Your task to perform on an android device: toggle sleep mode Image 0: 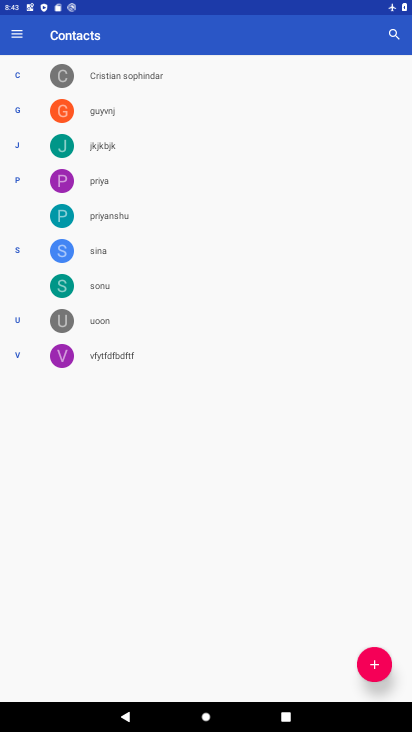
Step 0: press home button
Your task to perform on an android device: toggle sleep mode Image 1: 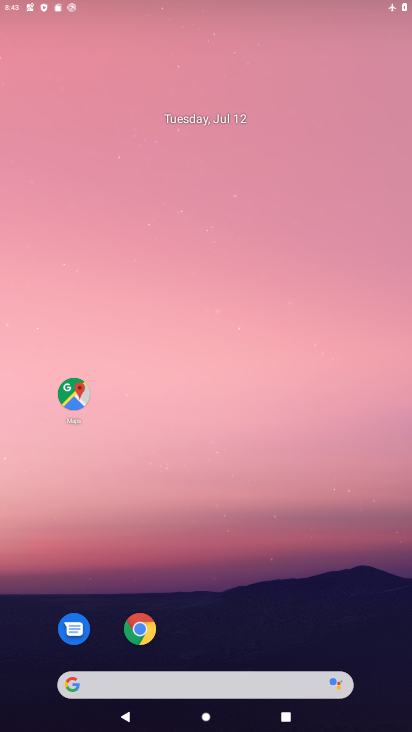
Step 1: drag from (232, 531) to (234, 148)
Your task to perform on an android device: toggle sleep mode Image 2: 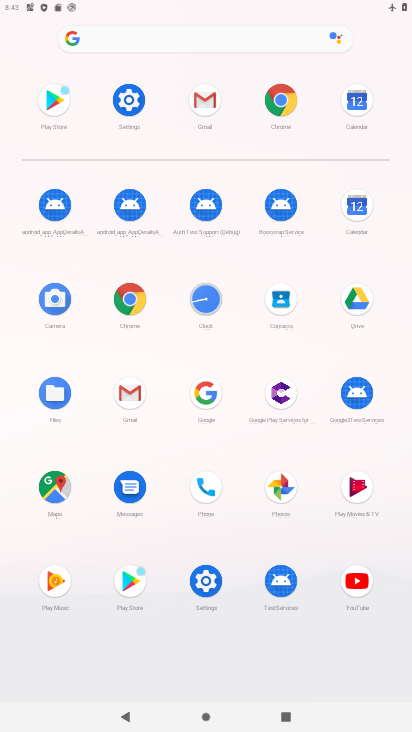
Step 2: click (130, 96)
Your task to perform on an android device: toggle sleep mode Image 3: 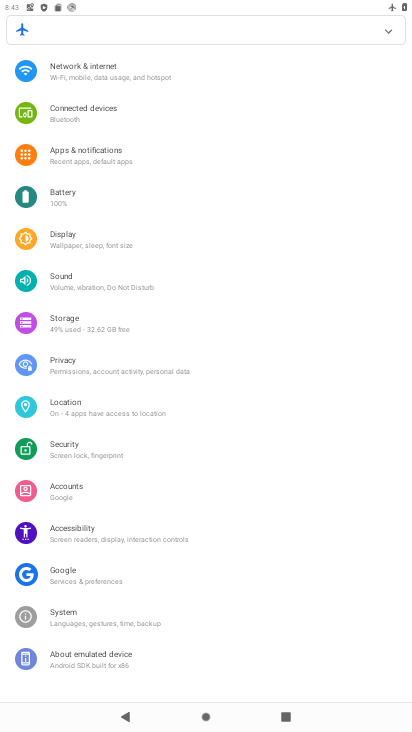
Step 3: task complete